Your task to perform on an android device: change notifications settings Image 0: 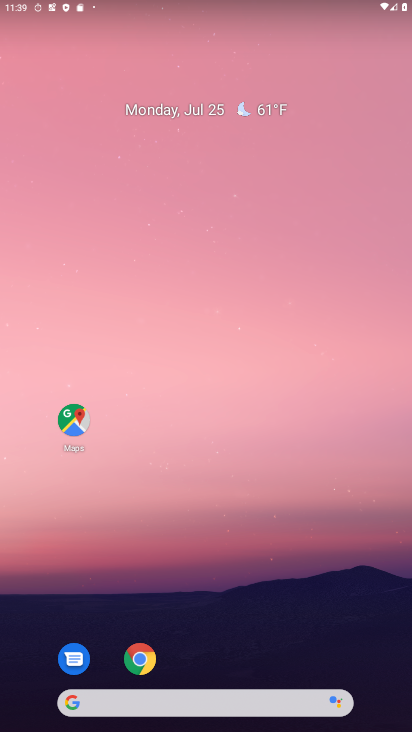
Step 0: drag from (41, 615) to (119, 247)
Your task to perform on an android device: change notifications settings Image 1: 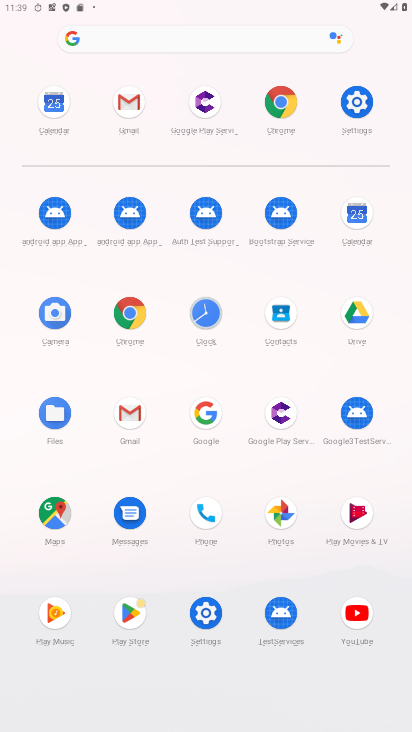
Step 1: click (206, 612)
Your task to perform on an android device: change notifications settings Image 2: 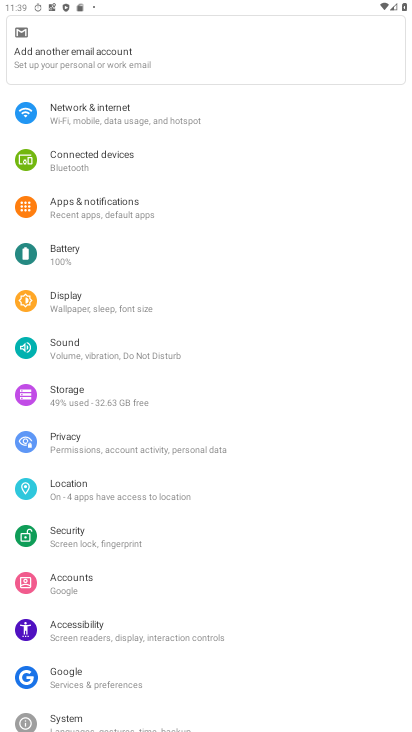
Step 2: click (76, 199)
Your task to perform on an android device: change notifications settings Image 3: 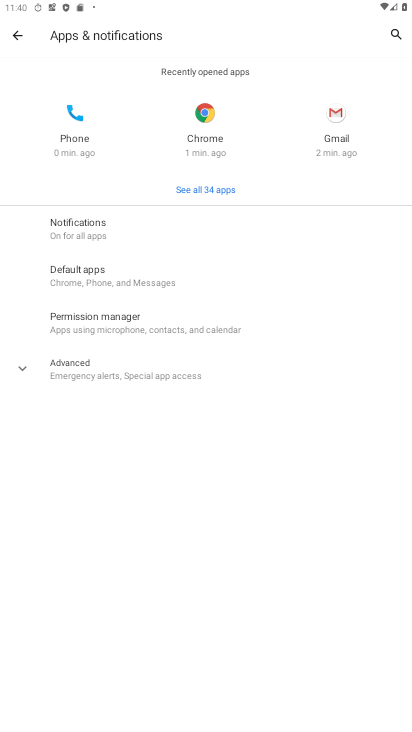
Step 3: press home button
Your task to perform on an android device: change notifications settings Image 4: 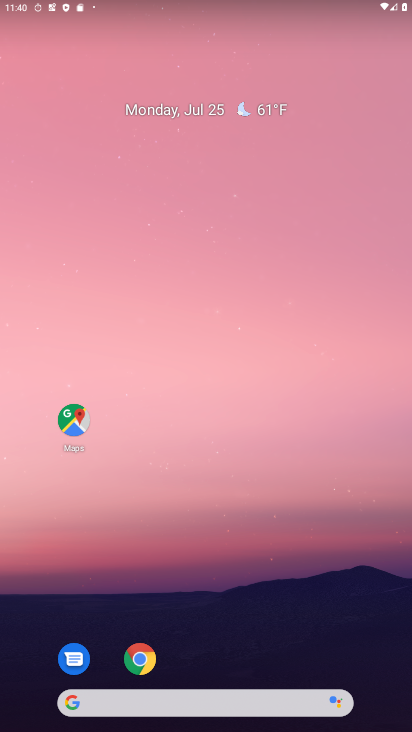
Step 4: drag from (66, 581) to (161, 297)
Your task to perform on an android device: change notifications settings Image 5: 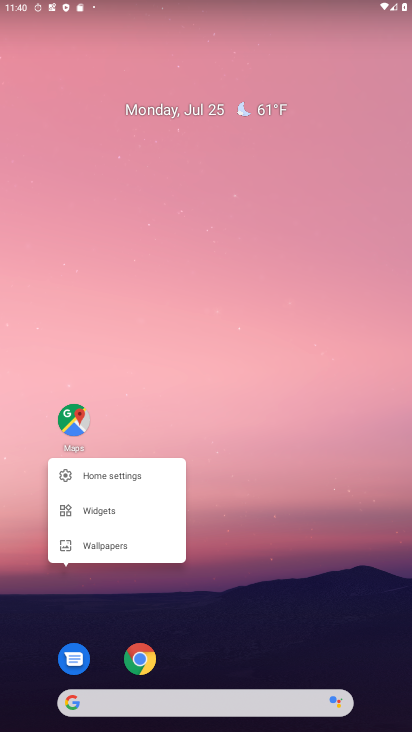
Step 5: click (189, 290)
Your task to perform on an android device: change notifications settings Image 6: 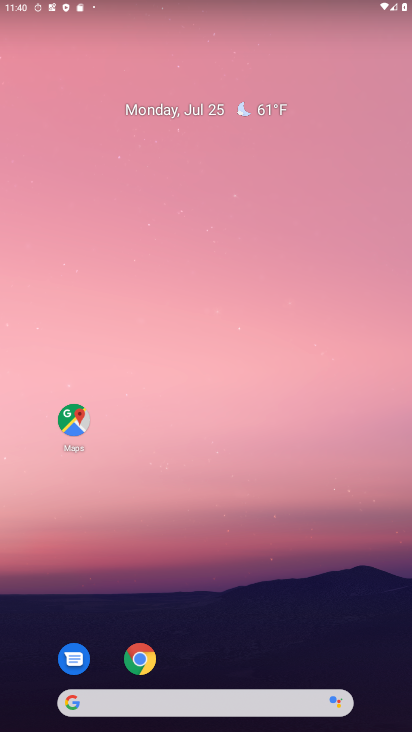
Step 6: task complete